Your task to perform on an android device: toggle notifications settings in the gmail app Image 0: 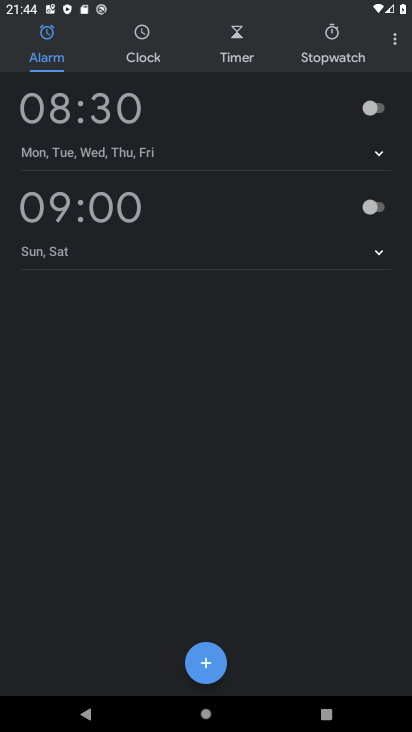
Step 0: press home button
Your task to perform on an android device: toggle notifications settings in the gmail app Image 1: 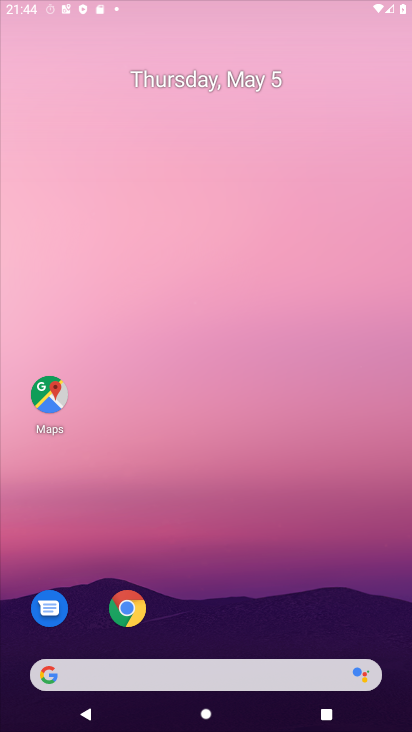
Step 1: drag from (288, 662) to (205, 92)
Your task to perform on an android device: toggle notifications settings in the gmail app Image 2: 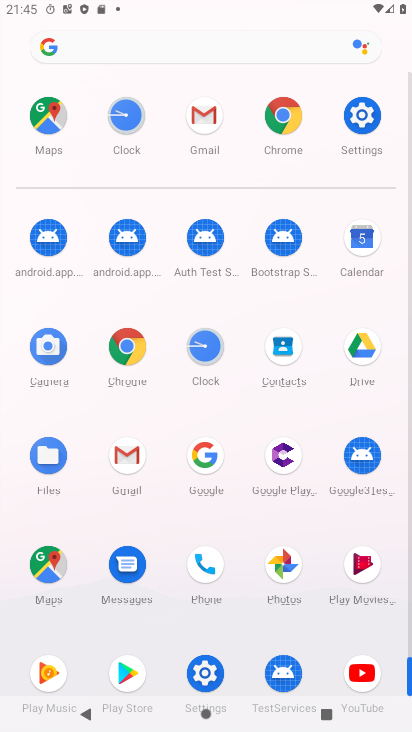
Step 2: click (106, 459)
Your task to perform on an android device: toggle notifications settings in the gmail app Image 3: 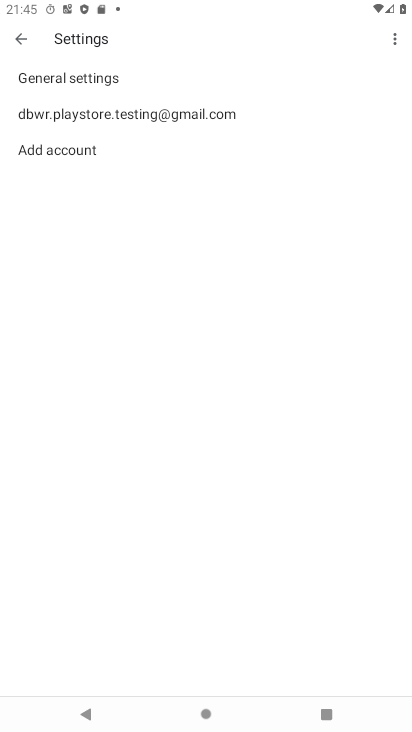
Step 3: click (128, 115)
Your task to perform on an android device: toggle notifications settings in the gmail app Image 4: 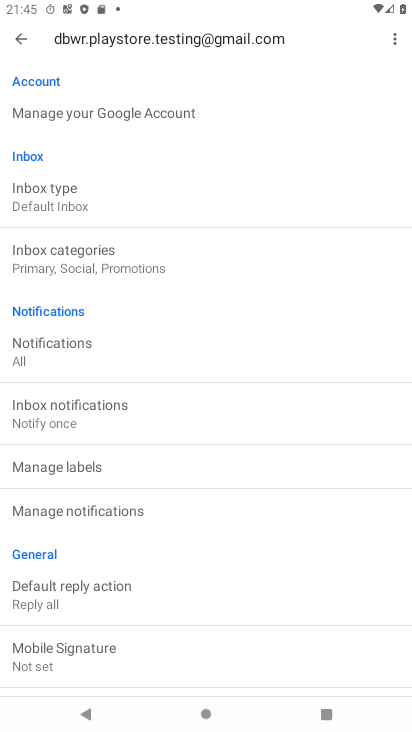
Step 4: click (93, 514)
Your task to perform on an android device: toggle notifications settings in the gmail app Image 5: 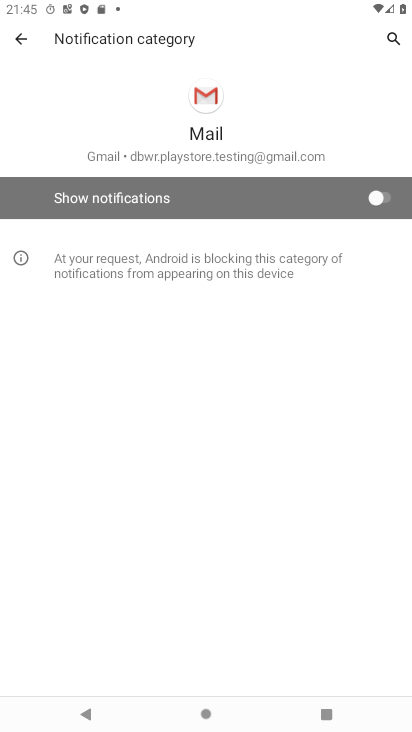
Step 5: click (383, 193)
Your task to perform on an android device: toggle notifications settings in the gmail app Image 6: 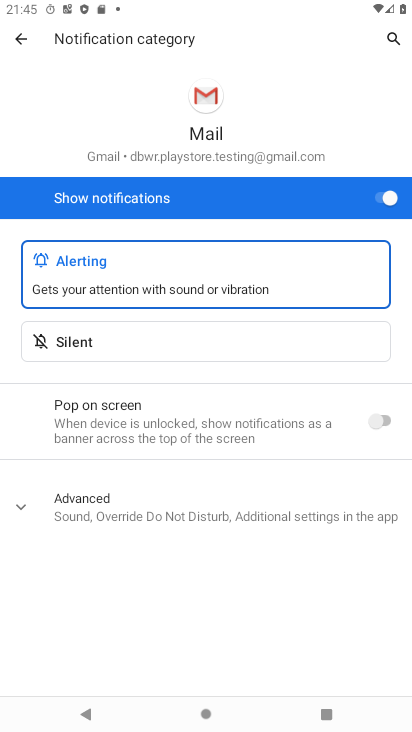
Step 6: task complete